Your task to perform on an android device: Do I have any events this weekend? Image 0: 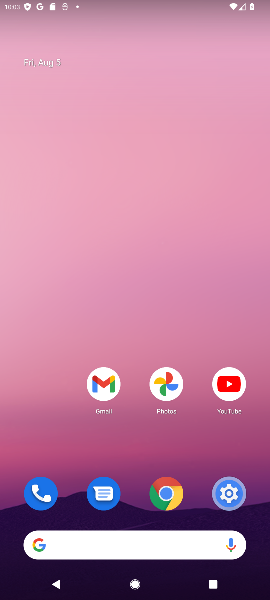
Step 0: drag from (137, 472) to (132, 9)
Your task to perform on an android device: Do I have any events this weekend? Image 1: 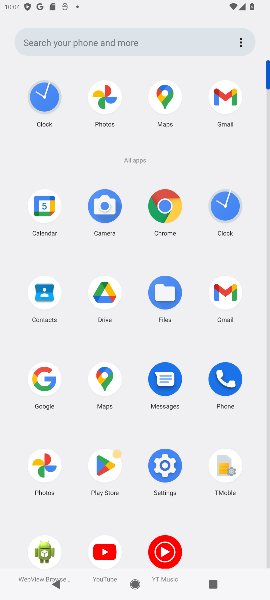
Step 1: click (42, 203)
Your task to perform on an android device: Do I have any events this weekend? Image 2: 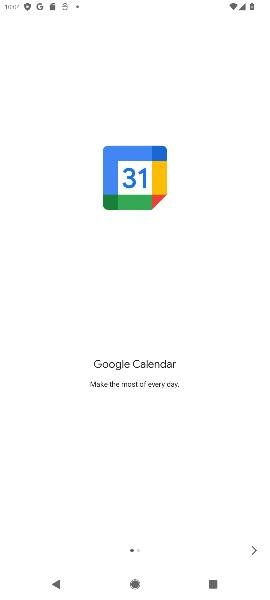
Step 2: click (251, 550)
Your task to perform on an android device: Do I have any events this weekend? Image 3: 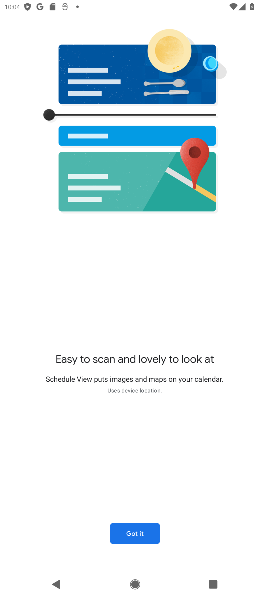
Step 3: click (142, 527)
Your task to perform on an android device: Do I have any events this weekend? Image 4: 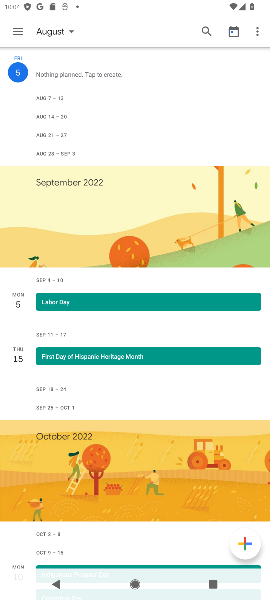
Step 4: click (17, 35)
Your task to perform on an android device: Do I have any events this weekend? Image 5: 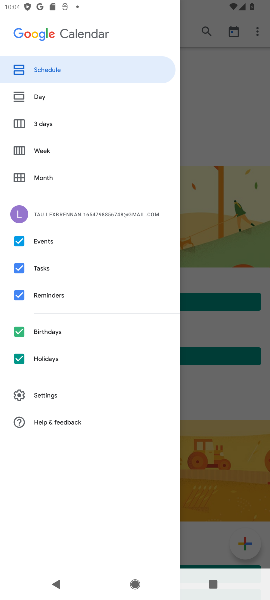
Step 5: click (38, 149)
Your task to perform on an android device: Do I have any events this weekend? Image 6: 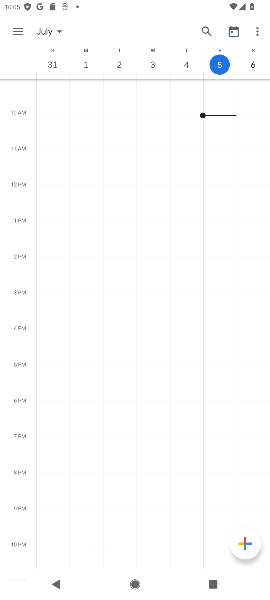
Step 6: task complete